Your task to perform on an android device: What's the weather today? Image 0: 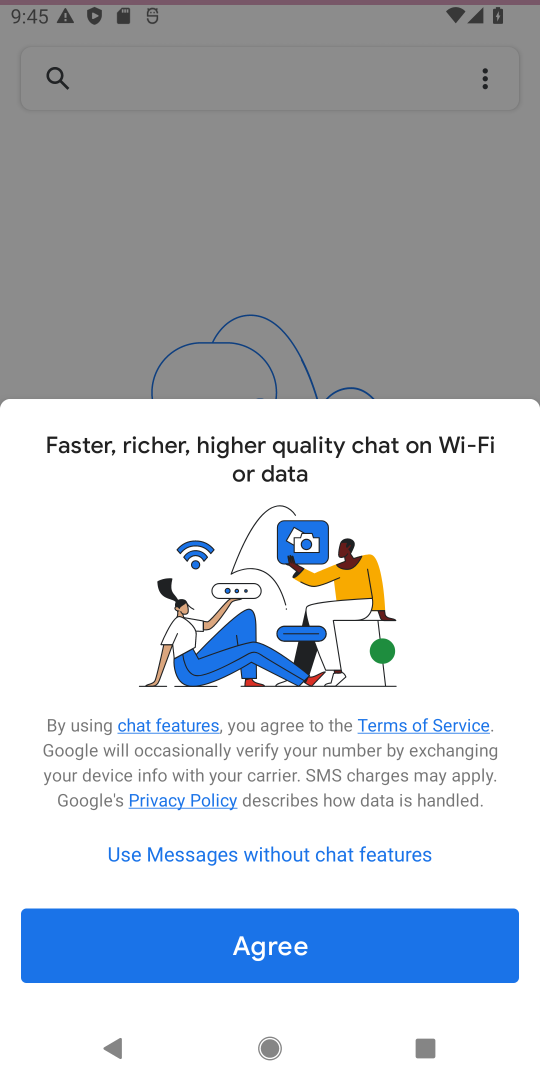
Step 0: press home button
Your task to perform on an android device: What's the weather today? Image 1: 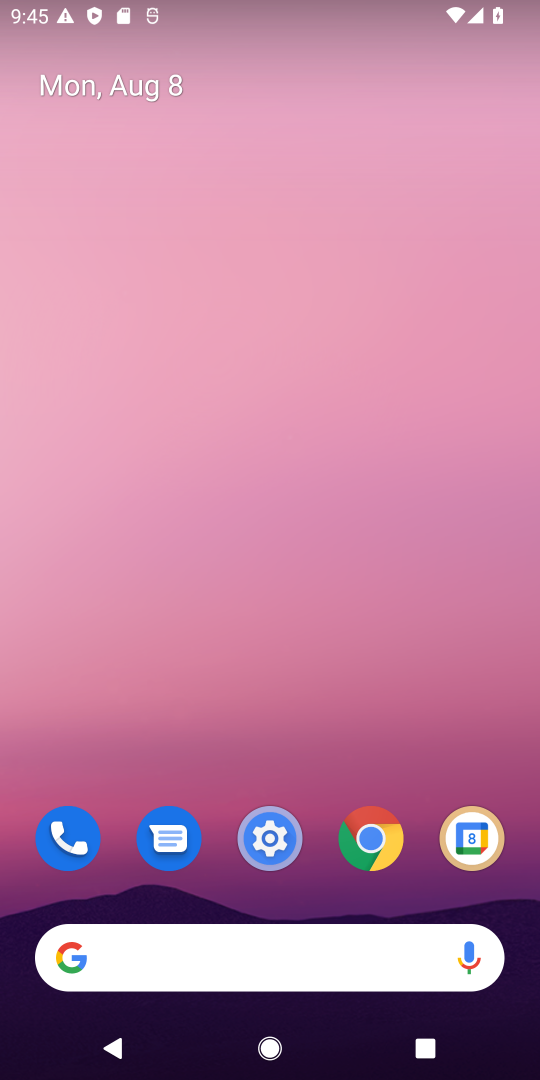
Step 1: click (66, 962)
Your task to perform on an android device: What's the weather today? Image 2: 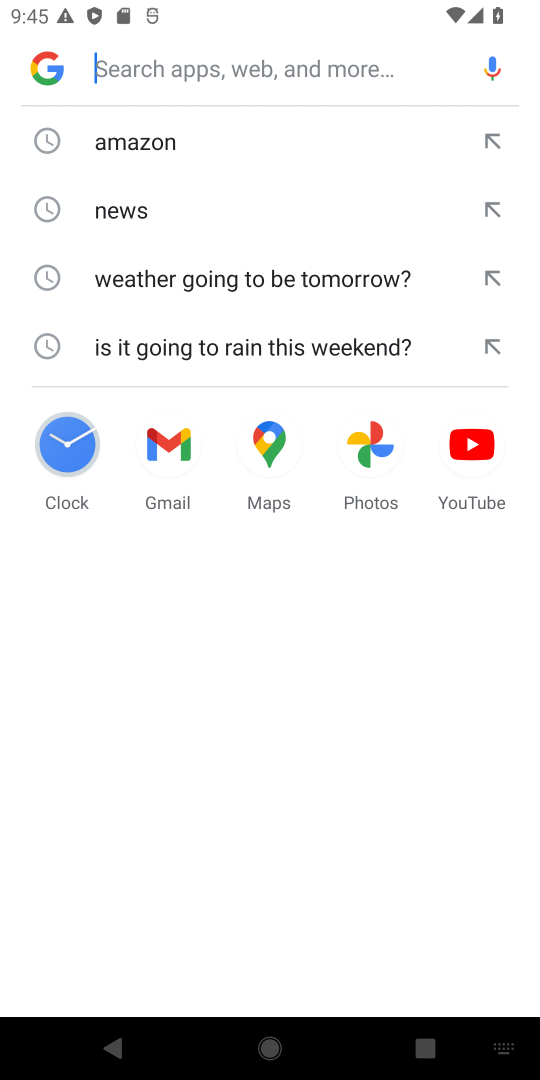
Step 2: type "weather today?"
Your task to perform on an android device: What's the weather today? Image 3: 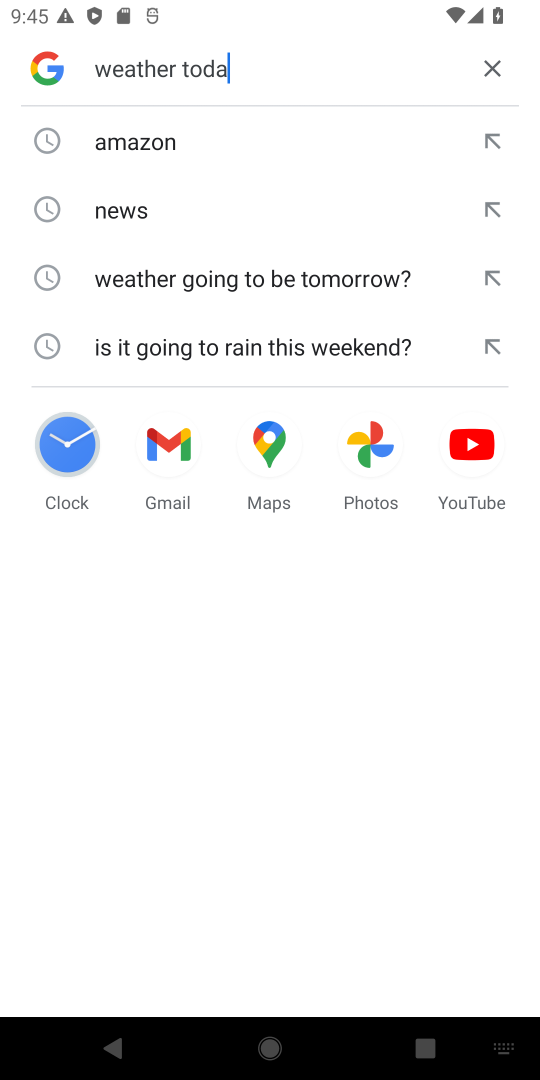
Step 3: press enter
Your task to perform on an android device: What's the weather today? Image 4: 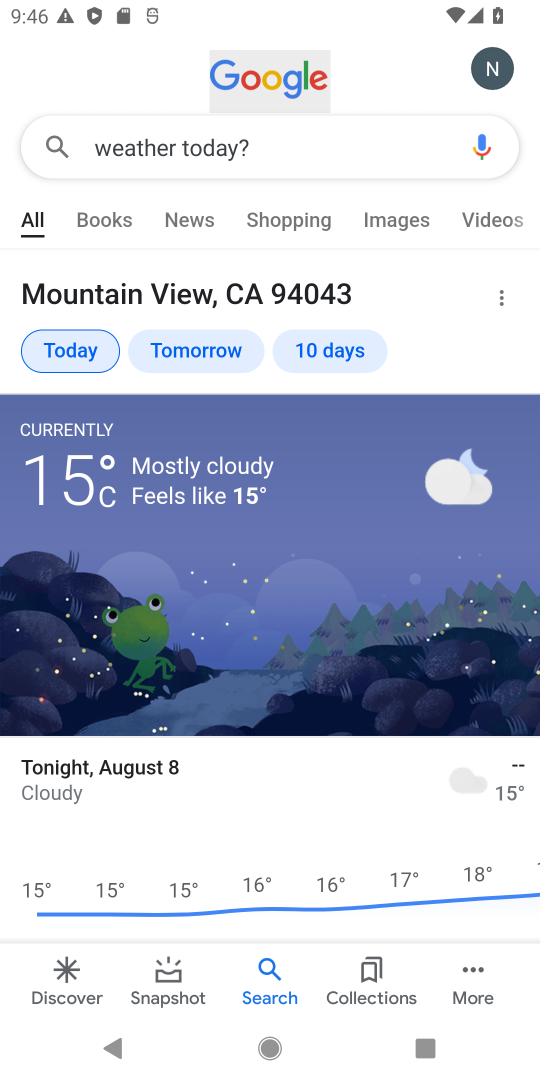
Step 4: task complete